Your task to perform on an android device: Open the web browser Image 0: 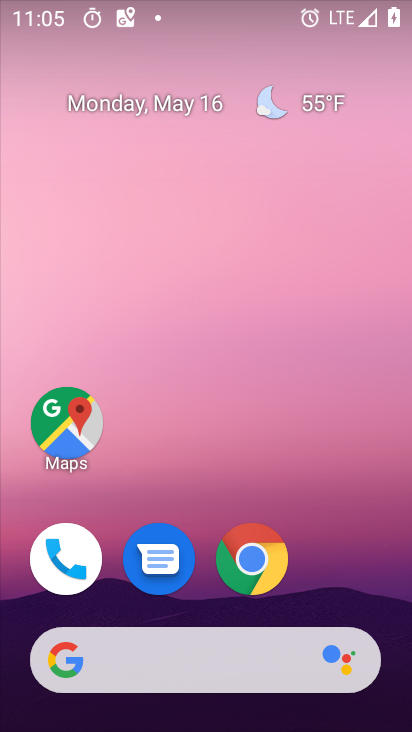
Step 0: click (258, 547)
Your task to perform on an android device: Open the web browser Image 1: 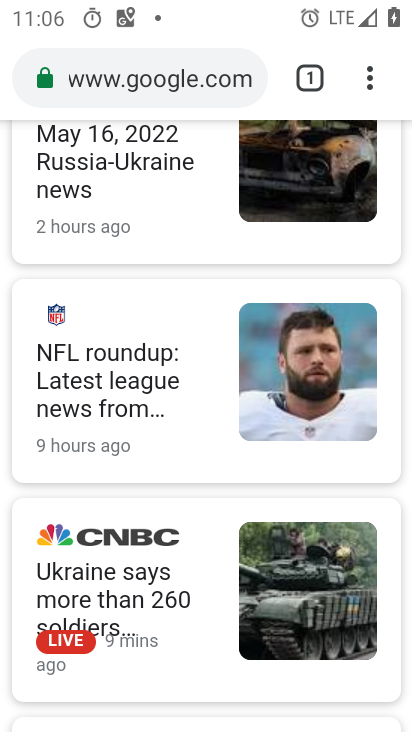
Step 1: task complete